Your task to perform on an android device: Clear the shopping cart on target. Add "acer predator" to the cart on target Image 0: 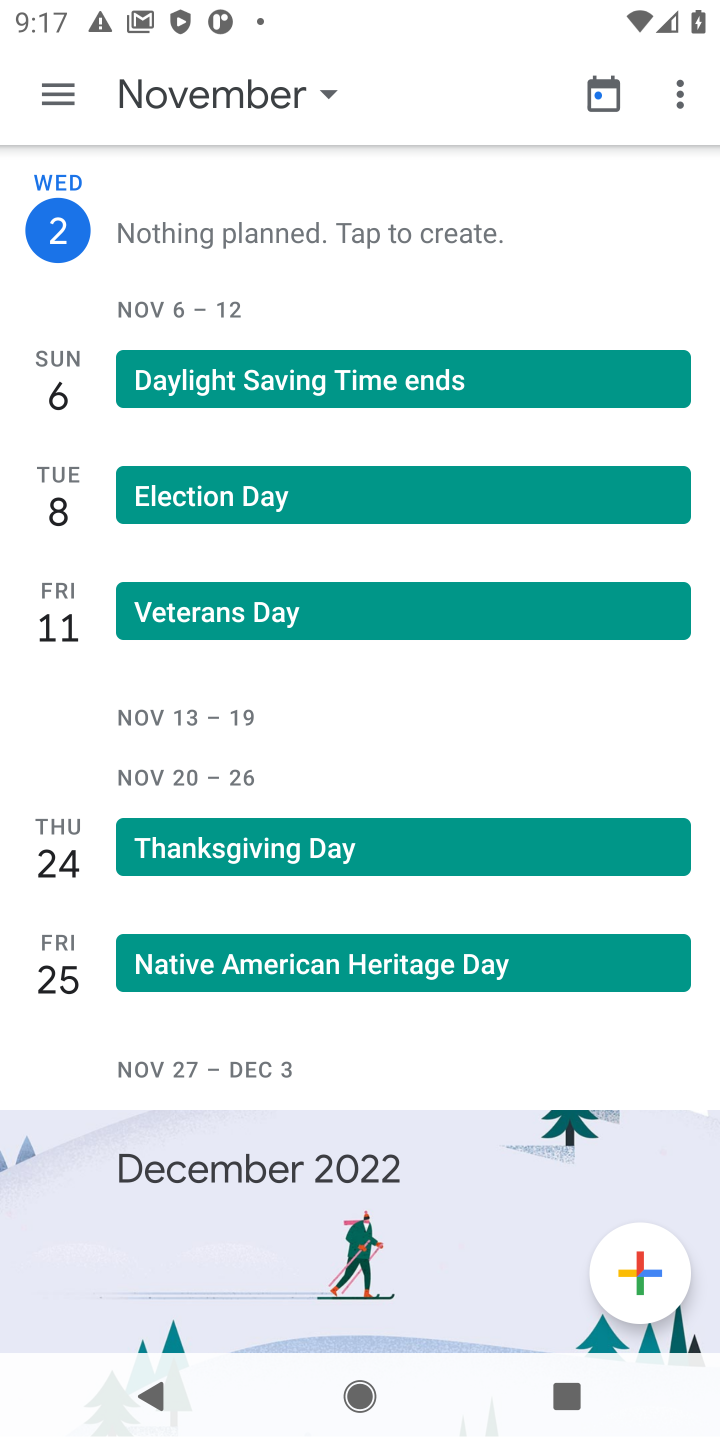
Step 0: press home button
Your task to perform on an android device: Clear the shopping cart on target. Add "acer predator" to the cart on target Image 1: 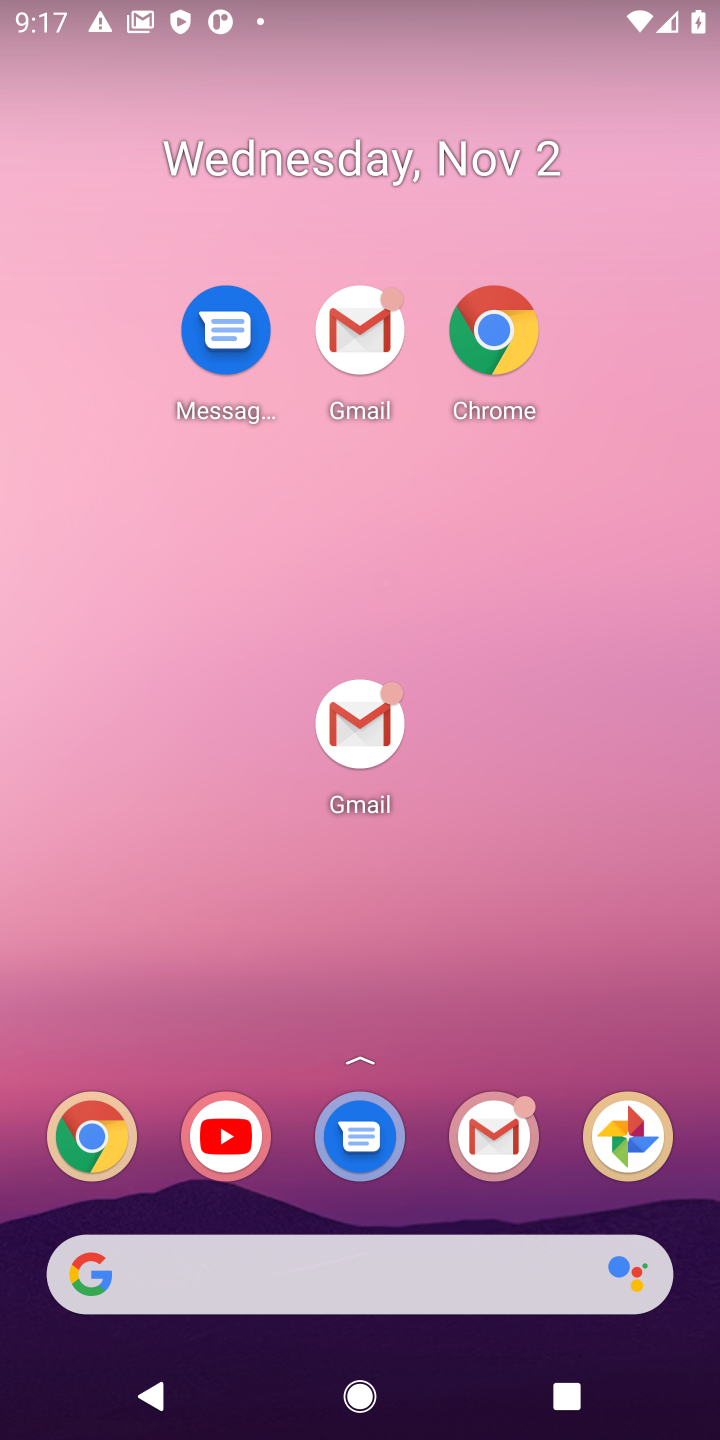
Step 1: drag from (170, 1223) to (199, 539)
Your task to perform on an android device: Clear the shopping cart on target. Add "acer predator" to the cart on target Image 2: 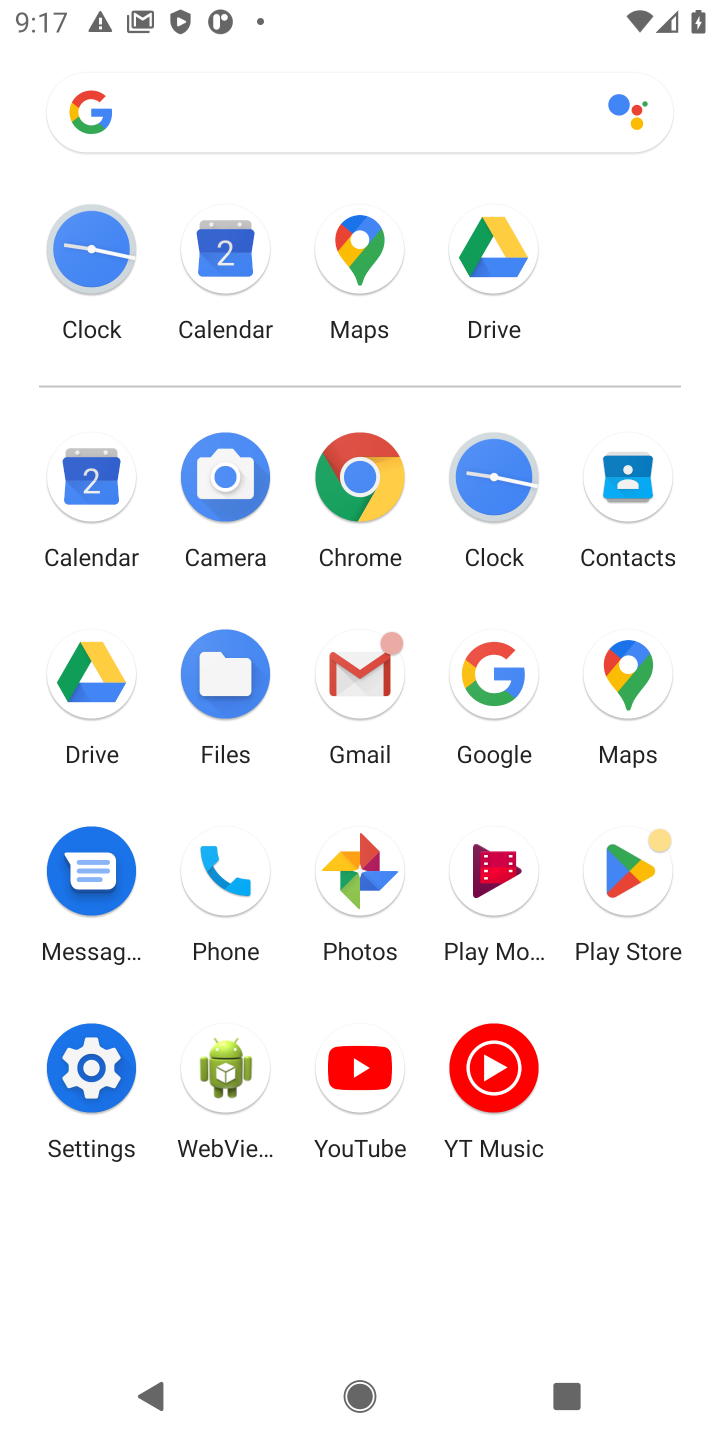
Step 2: click (494, 646)
Your task to perform on an android device: Clear the shopping cart on target. Add "acer predator" to the cart on target Image 3: 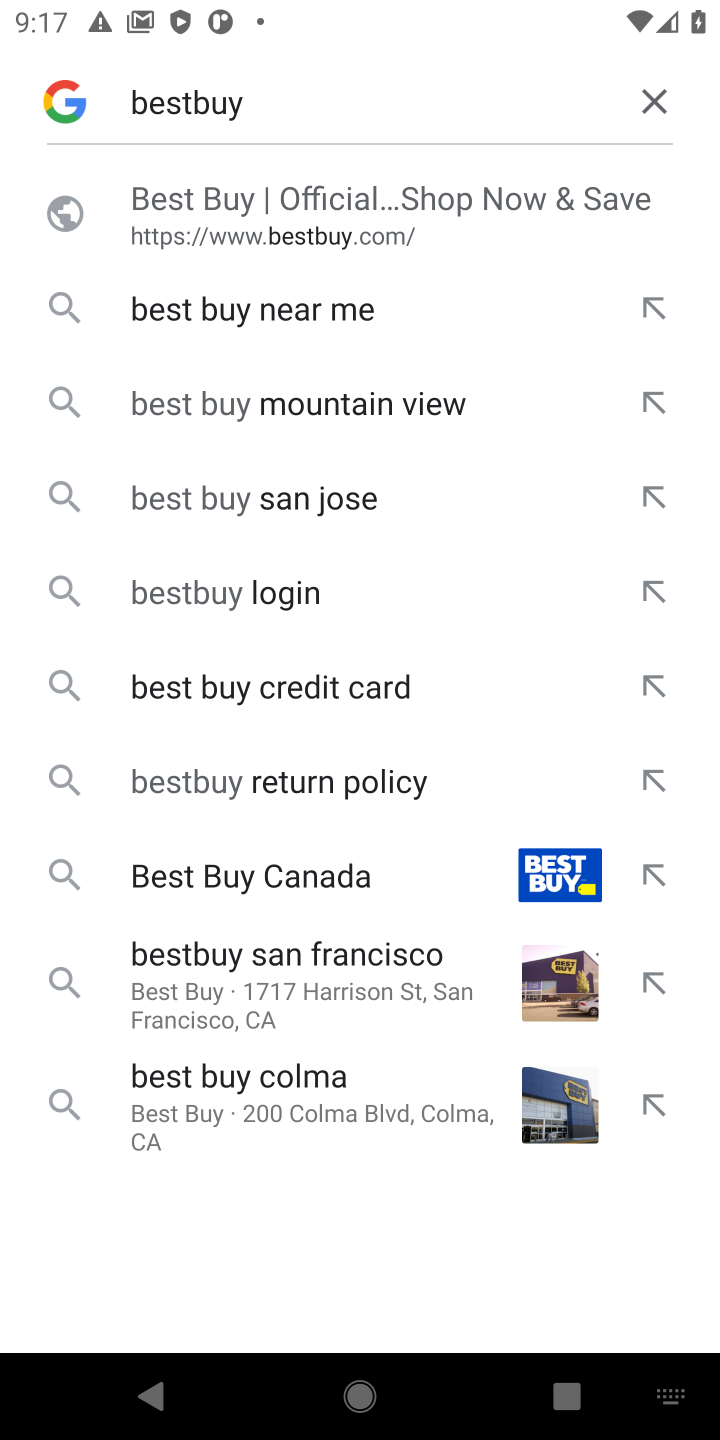
Step 3: click (643, 95)
Your task to perform on an android device: Clear the shopping cart on target. Add "acer predator" to the cart on target Image 4: 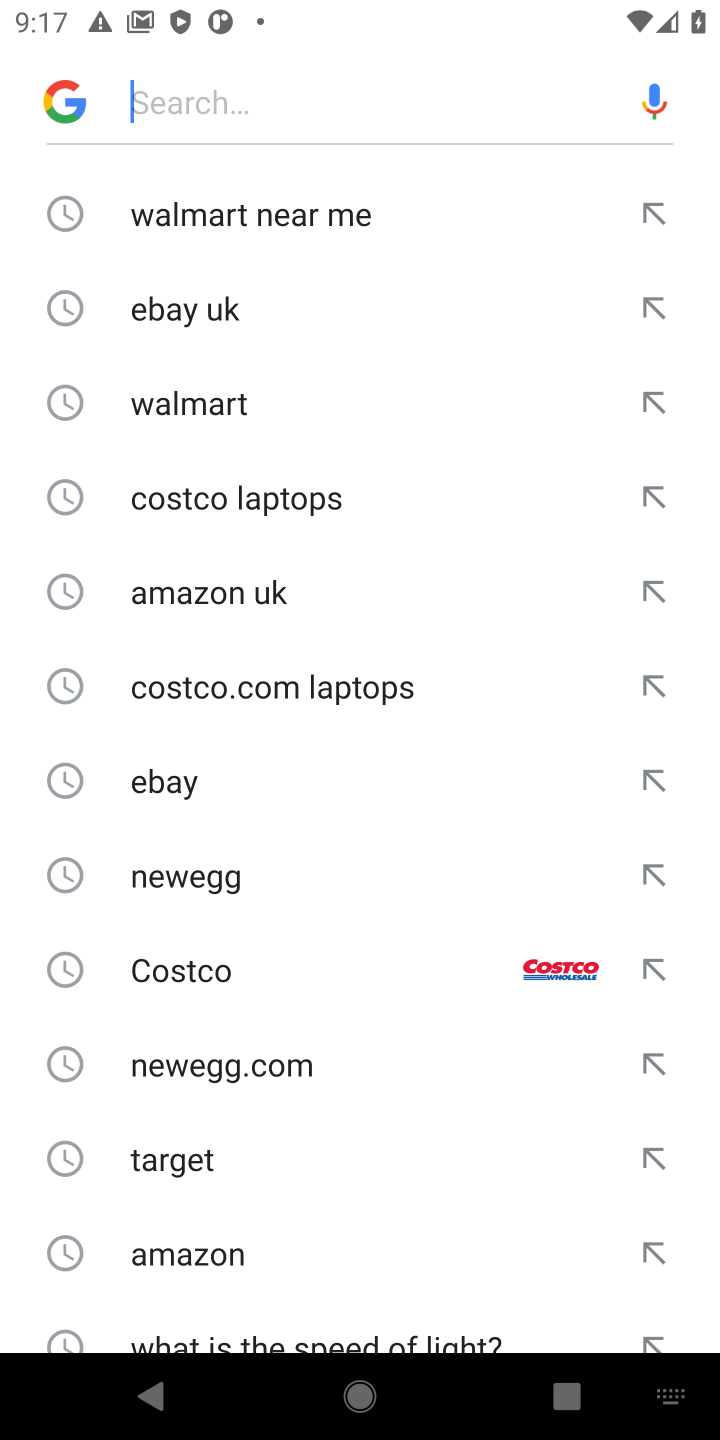
Step 4: click (160, 1157)
Your task to perform on an android device: Clear the shopping cart on target. Add "acer predator" to the cart on target Image 5: 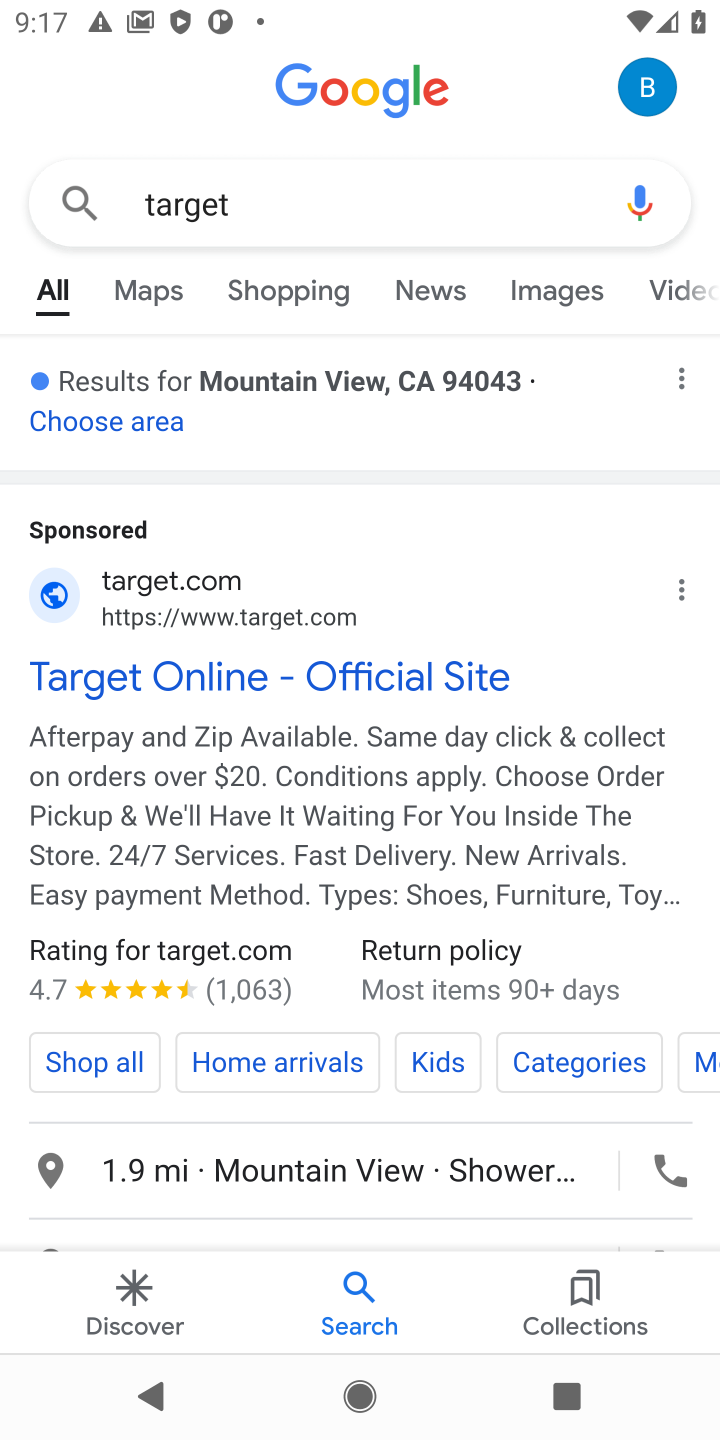
Step 5: click (53, 589)
Your task to perform on an android device: Clear the shopping cart on target. Add "acer predator" to the cart on target Image 6: 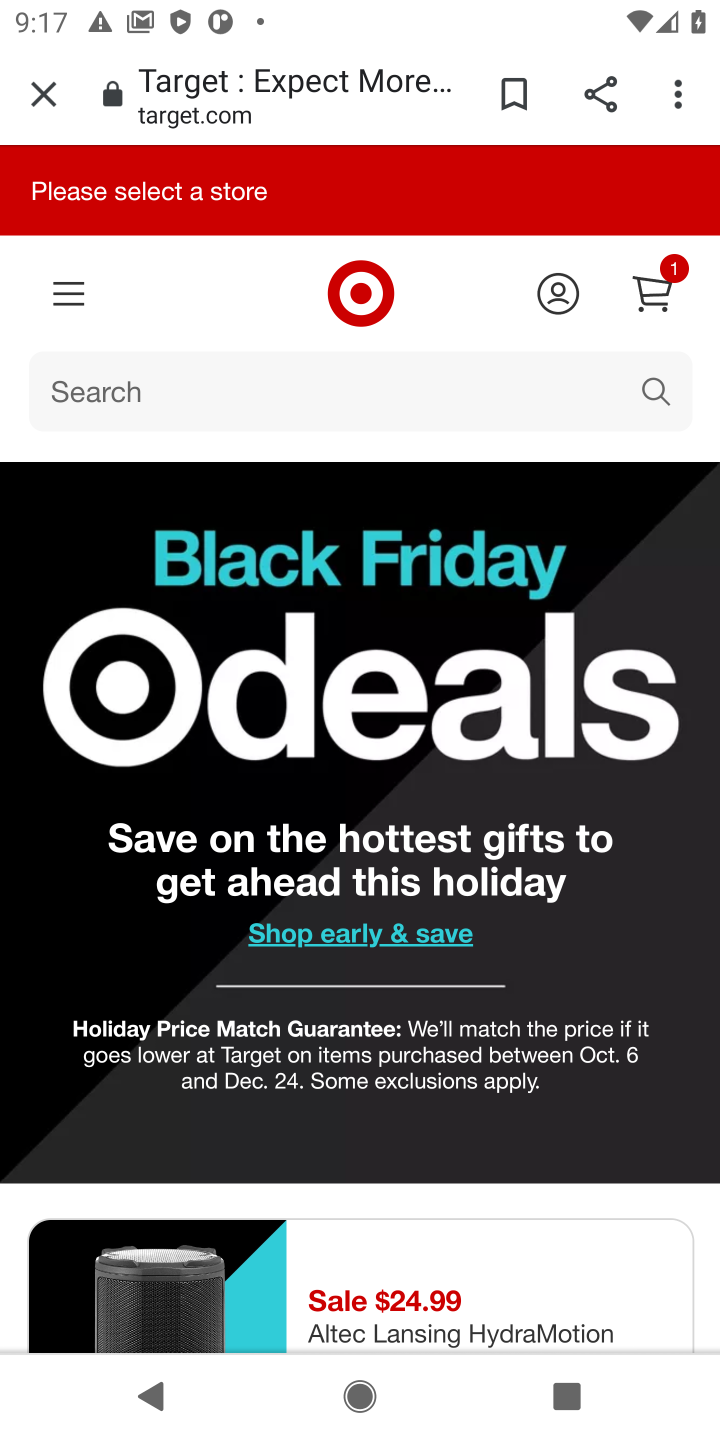
Step 6: click (236, 386)
Your task to perform on an android device: Clear the shopping cart on target. Add "acer predator" to the cart on target Image 7: 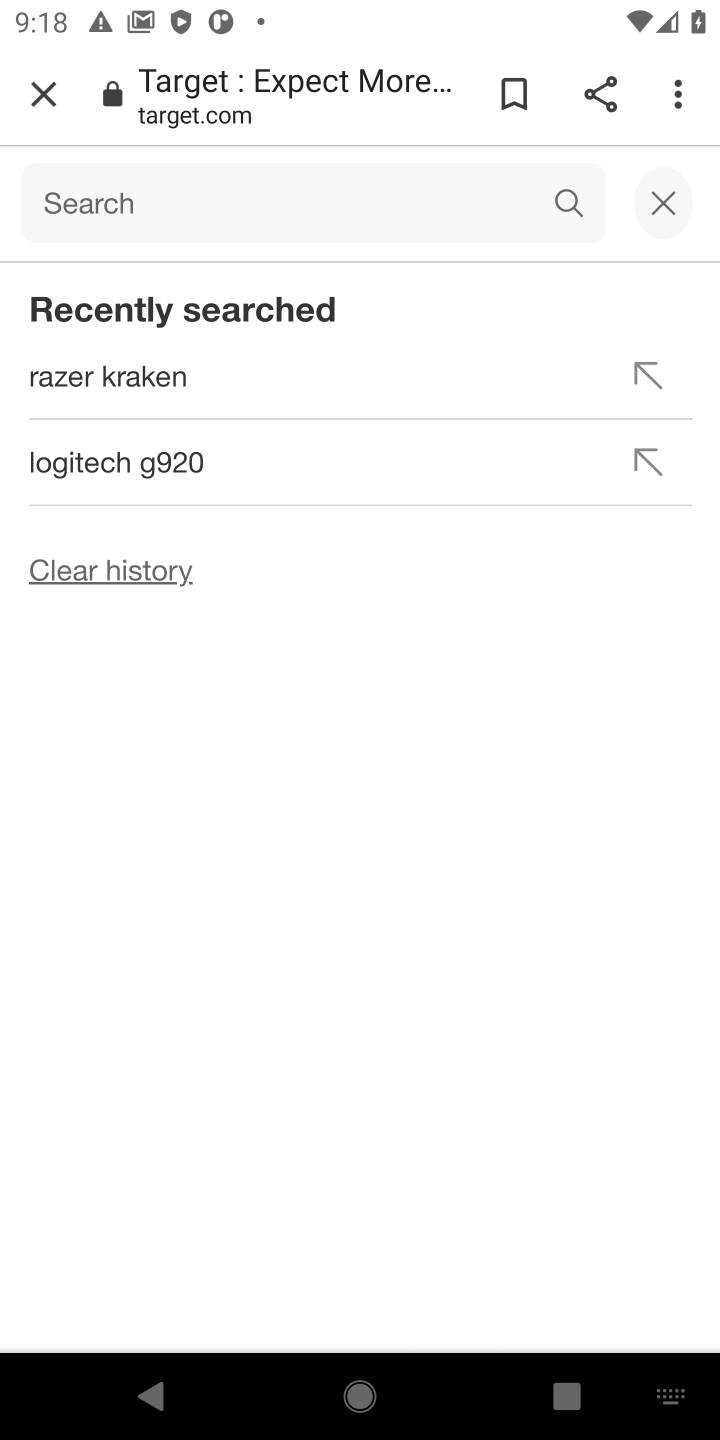
Step 7: click (353, 124)
Your task to perform on an android device: Clear the shopping cart on target. Add "acer predator" to the cart on target Image 8: 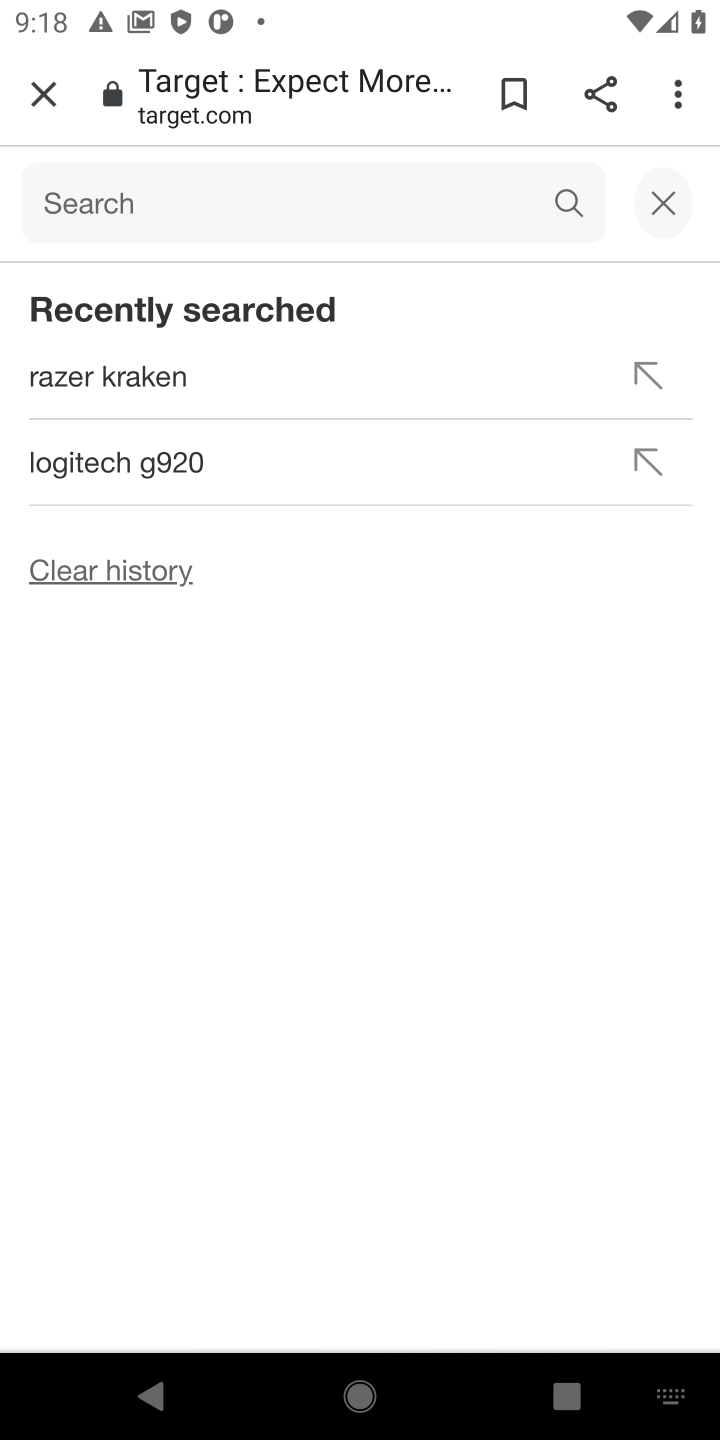
Step 8: click (338, 194)
Your task to perform on an android device: Clear the shopping cart on target. Add "acer predator" to the cart on target Image 9: 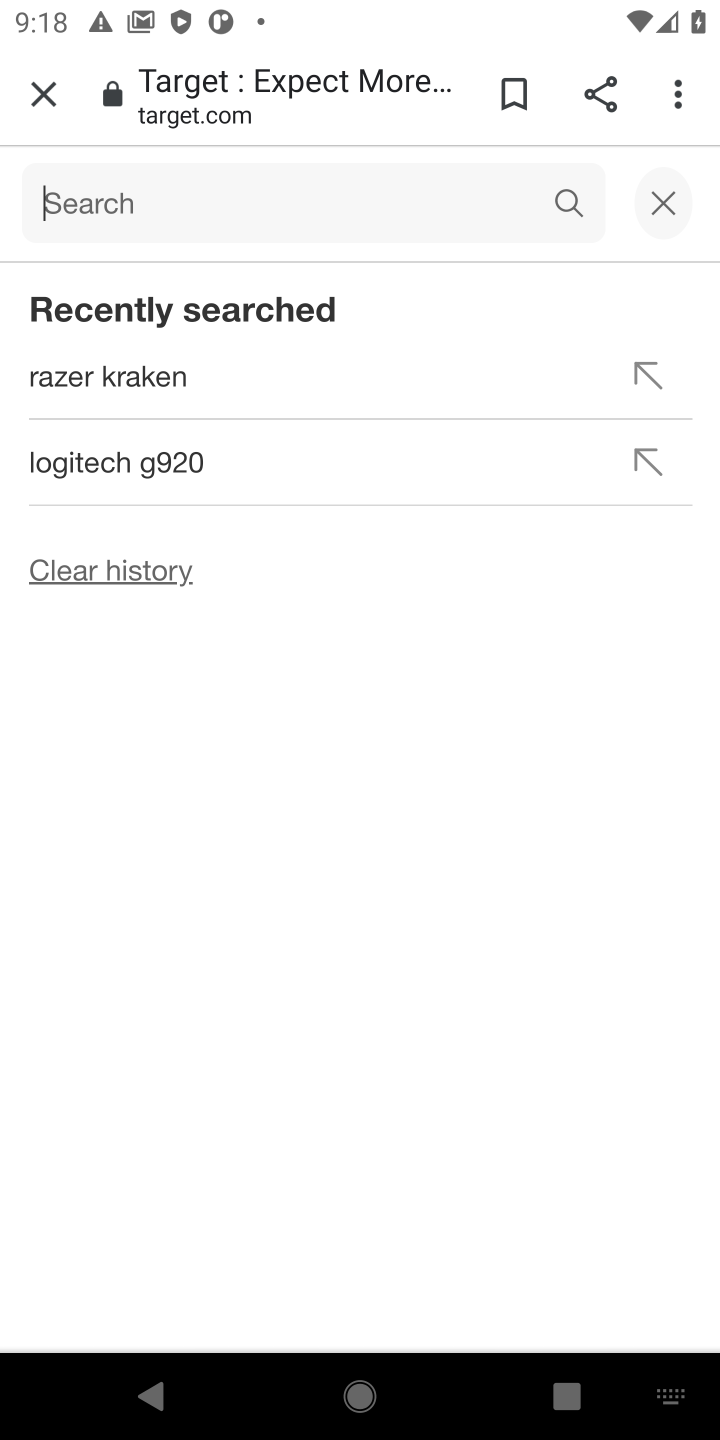
Step 9: click (222, 184)
Your task to perform on an android device: Clear the shopping cart on target. Add "acer predator" to the cart on target Image 10: 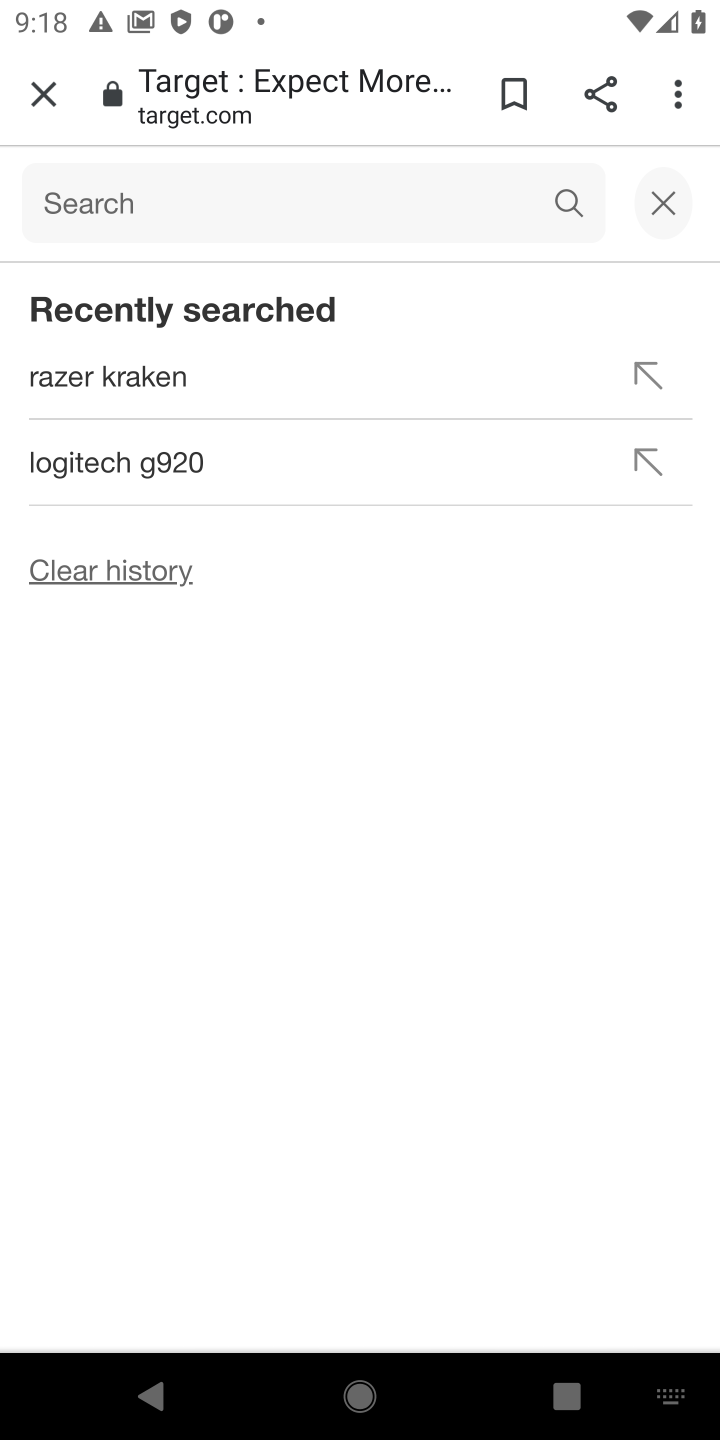
Step 10: type "acer predator "
Your task to perform on an android device: Clear the shopping cart on target. Add "acer predator" to the cart on target Image 11: 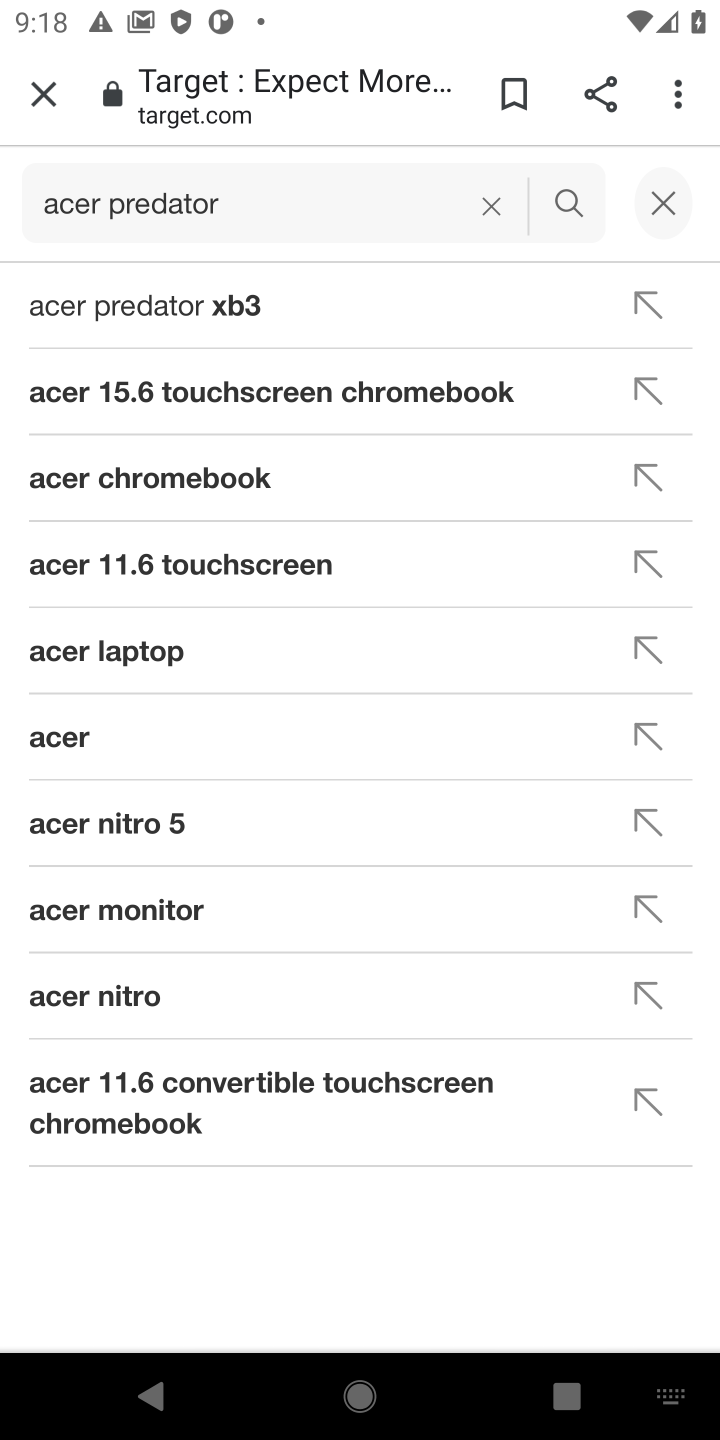
Step 11: click (219, 314)
Your task to perform on an android device: Clear the shopping cart on target. Add "acer predator" to the cart on target Image 12: 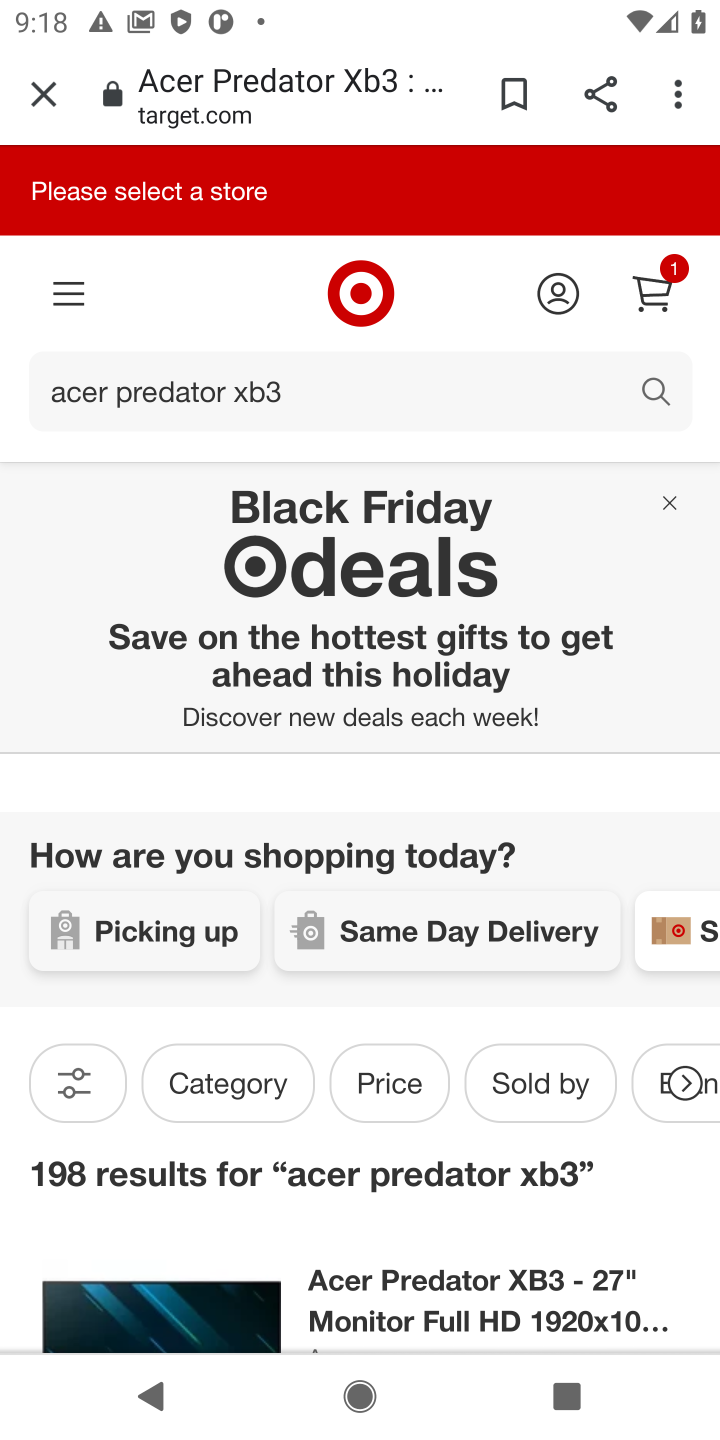
Step 12: drag from (246, 1170) to (277, 542)
Your task to perform on an android device: Clear the shopping cart on target. Add "acer predator" to the cart on target Image 13: 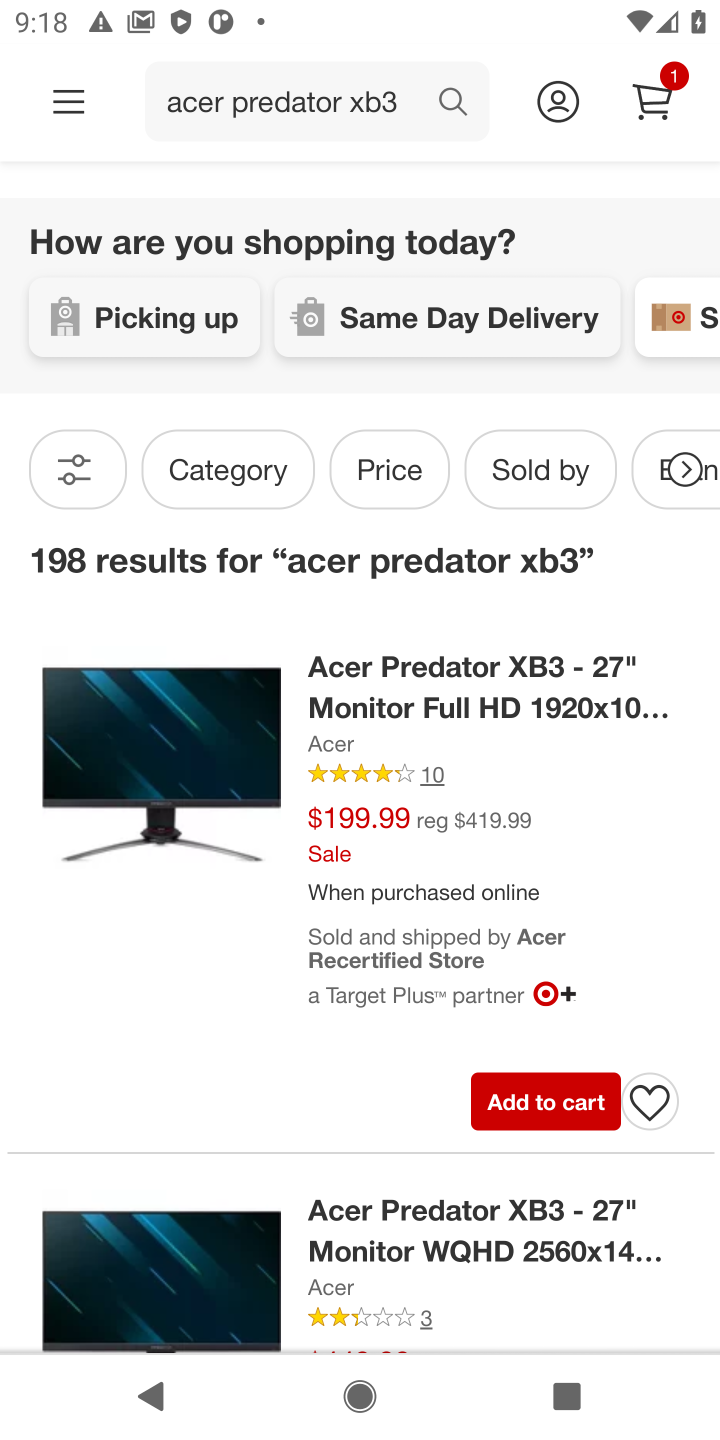
Step 13: click (517, 1102)
Your task to perform on an android device: Clear the shopping cart on target. Add "acer predator" to the cart on target Image 14: 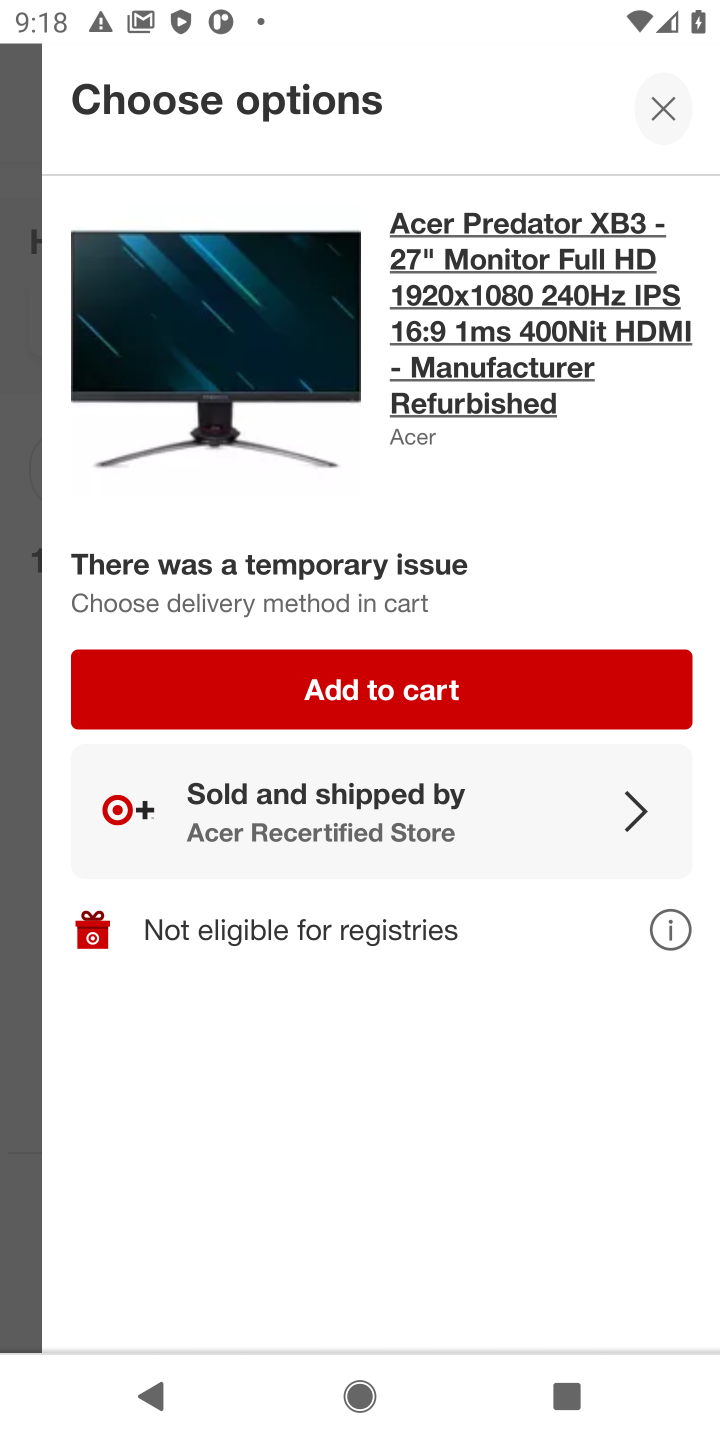
Step 14: click (328, 664)
Your task to perform on an android device: Clear the shopping cart on target. Add "acer predator" to the cart on target Image 15: 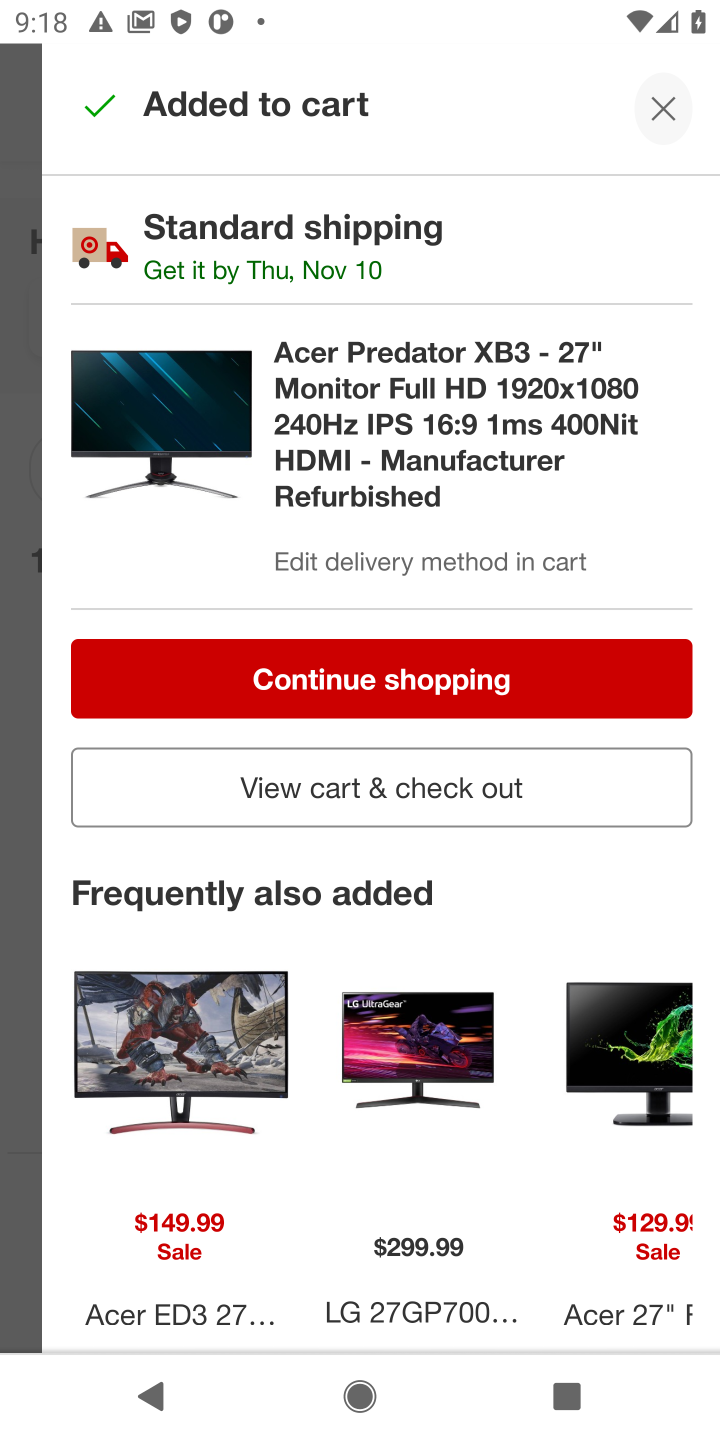
Step 15: task complete